Your task to perform on an android device: Toggle the flashlight Image 0: 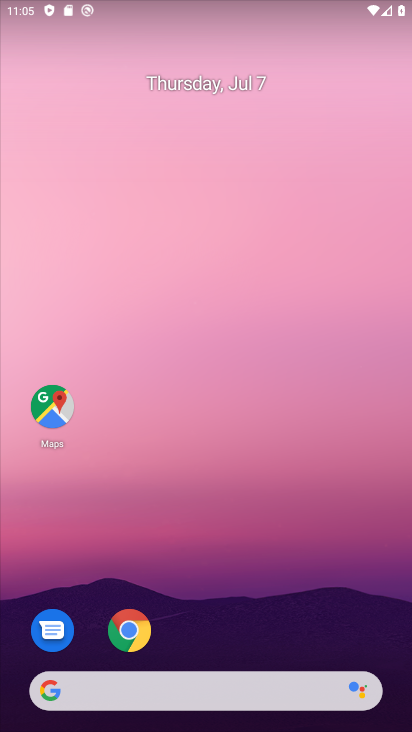
Step 0: drag from (362, 609) to (0, 133)
Your task to perform on an android device: Toggle the flashlight Image 1: 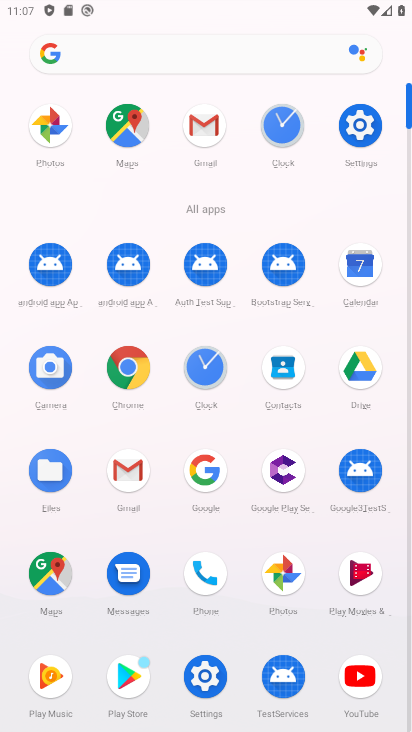
Step 1: click (360, 122)
Your task to perform on an android device: Toggle the flashlight Image 2: 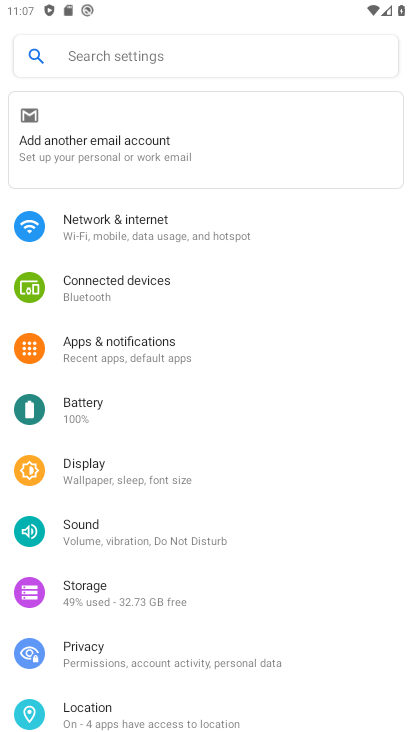
Step 2: task complete